Your task to perform on an android device: Open the calendar app, open the side menu, and click the "Day" option Image 0: 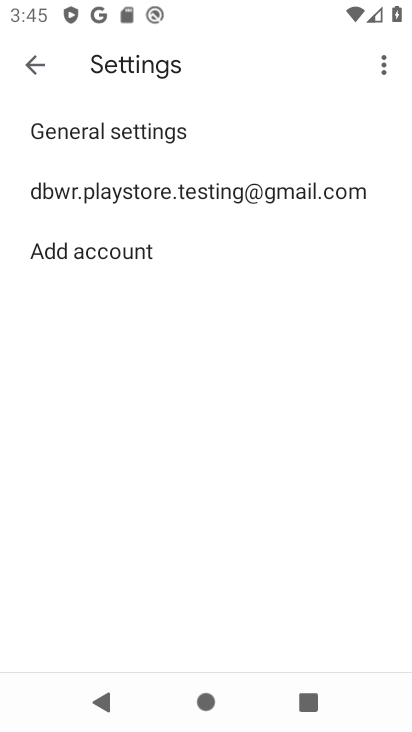
Step 0: press home button
Your task to perform on an android device: Open the calendar app, open the side menu, and click the "Day" option Image 1: 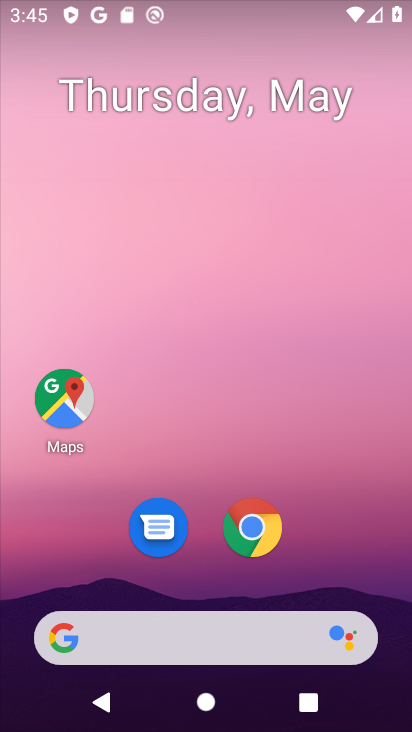
Step 1: drag from (214, 592) to (141, 77)
Your task to perform on an android device: Open the calendar app, open the side menu, and click the "Day" option Image 2: 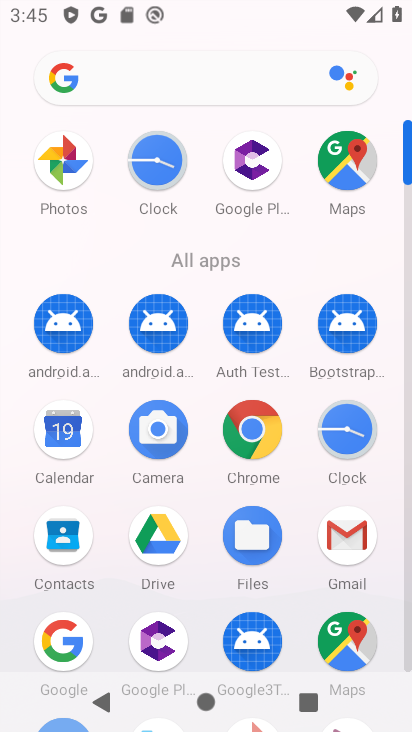
Step 2: click (52, 432)
Your task to perform on an android device: Open the calendar app, open the side menu, and click the "Day" option Image 3: 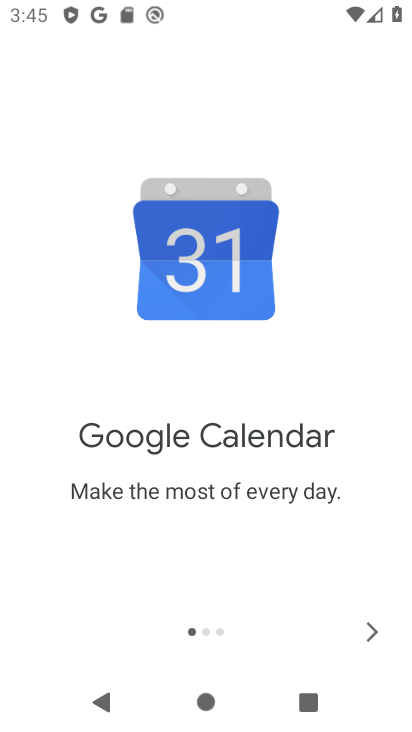
Step 3: click (359, 603)
Your task to perform on an android device: Open the calendar app, open the side menu, and click the "Day" option Image 4: 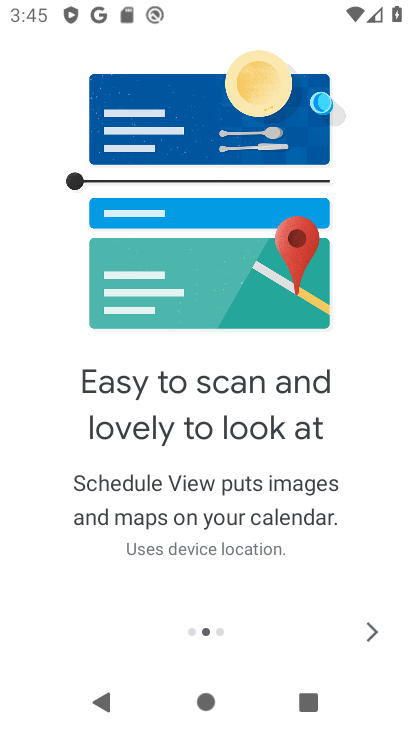
Step 4: click (359, 601)
Your task to perform on an android device: Open the calendar app, open the side menu, and click the "Day" option Image 5: 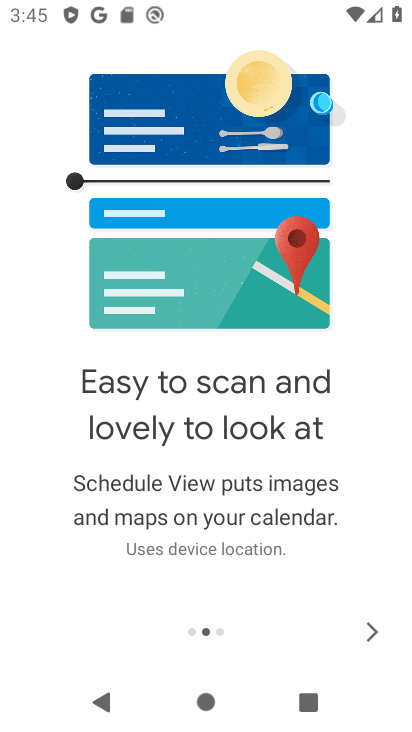
Step 5: click (362, 618)
Your task to perform on an android device: Open the calendar app, open the side menu, and click the "Day" option Image 6: 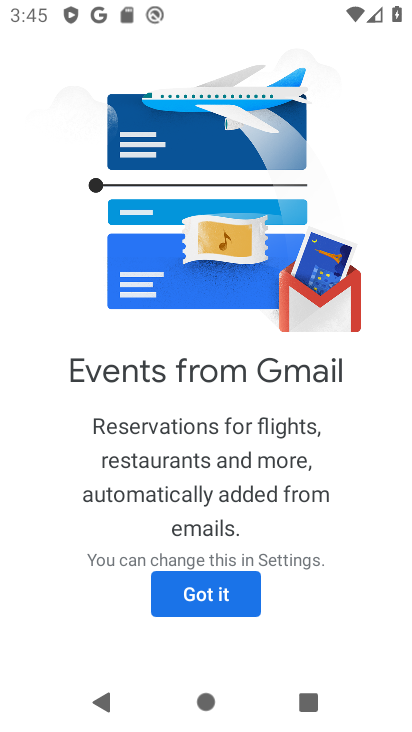
Step 6: click (229, 572)
Your task to perform on an android device: Open the calendar app, open the side menu, and click the "Day" option Image 7: 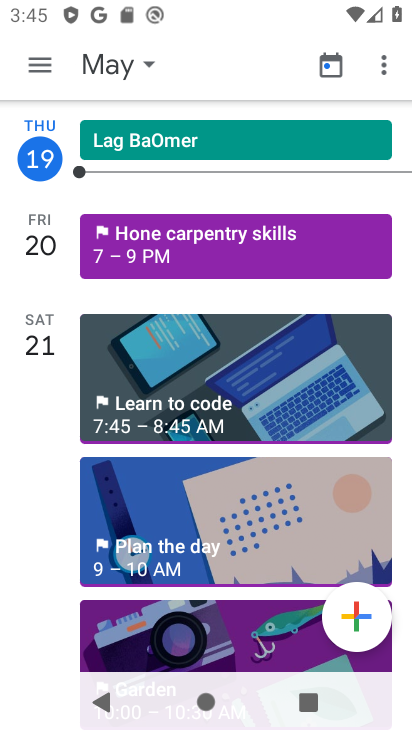
Step 7: click (43, 62)
Your task to perform on an android device: Open the calendar app, open the side menu, and click the "Day" option Image 8: 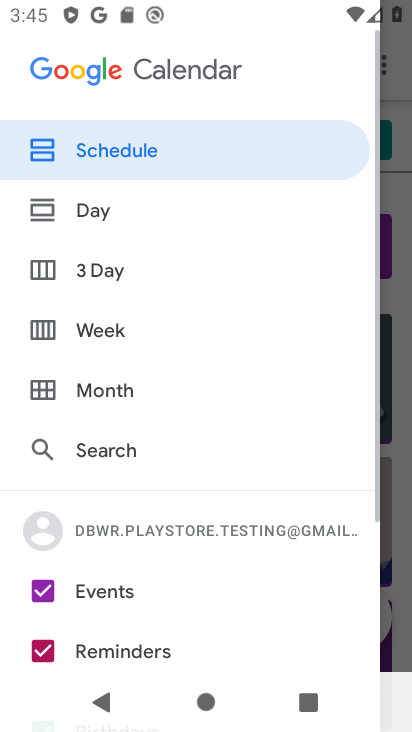
Step 8: click (97, 203)
Your task to perform on an android device: Open the calendar app, open the side menu, and click the "Day" option Image 9: 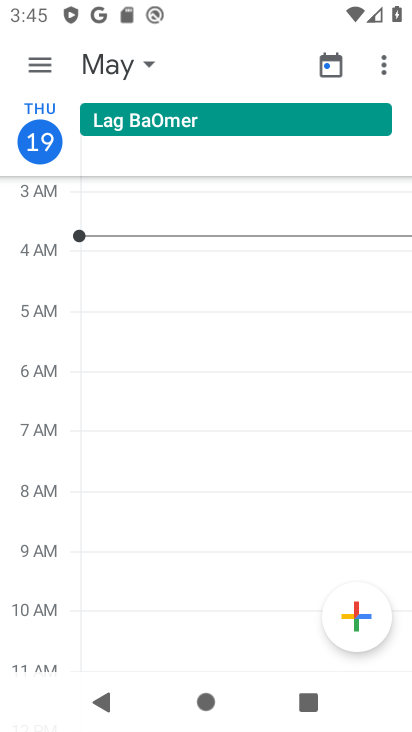
Step 9: task complete